Your task to perform on an android device: Add "logitech g910" to the cart on amazon Image 0: 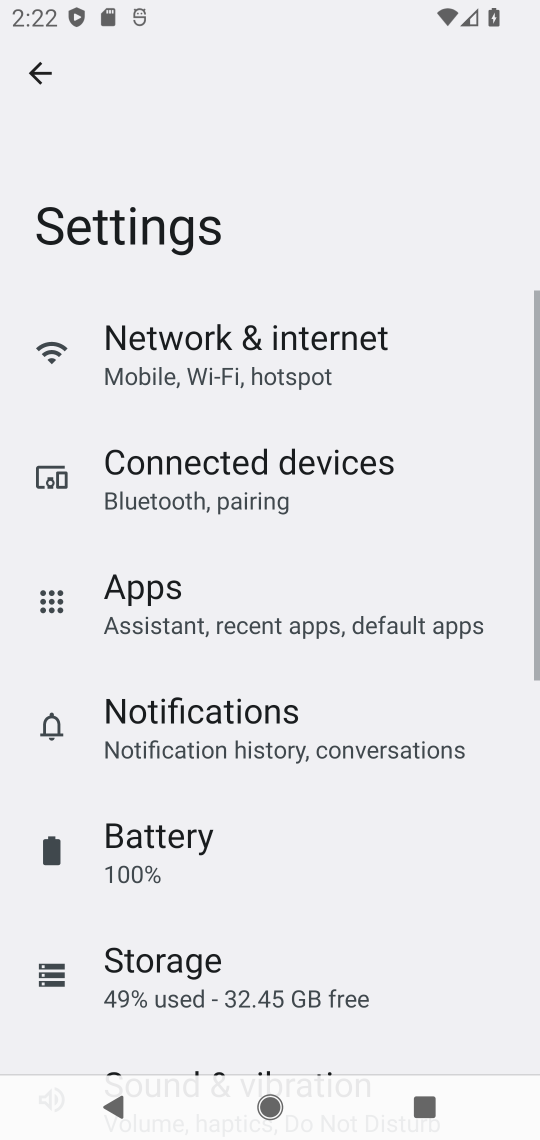
Step 0: press home button
Your task to perform on an android device: Add "logitech g910" to the cart on amazon Image 1: 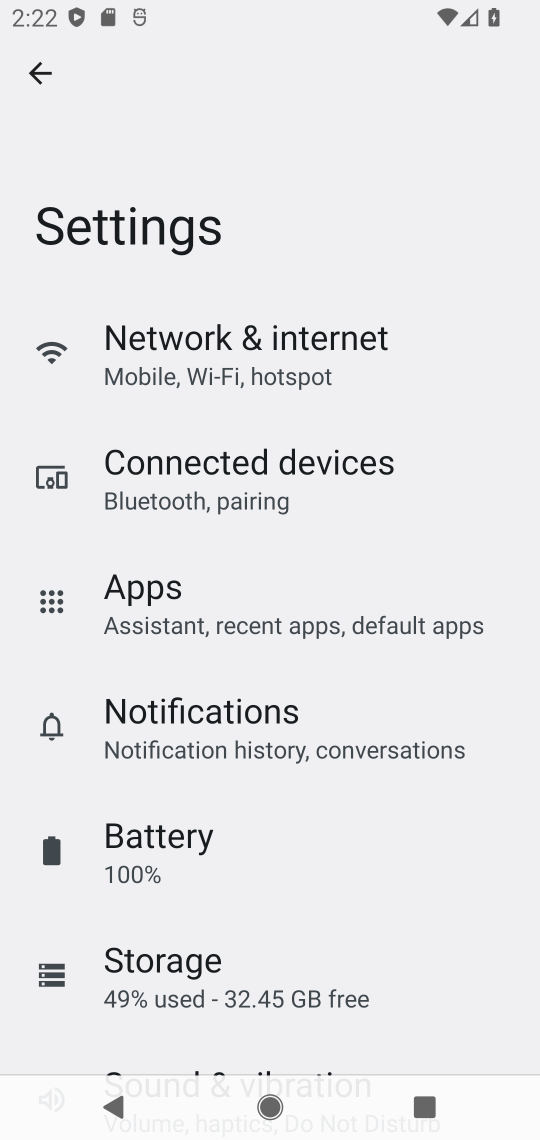
Step 1: press home button
Your task to perform on an android device: Add "logitech g910" to the cart on amazon Image 2: 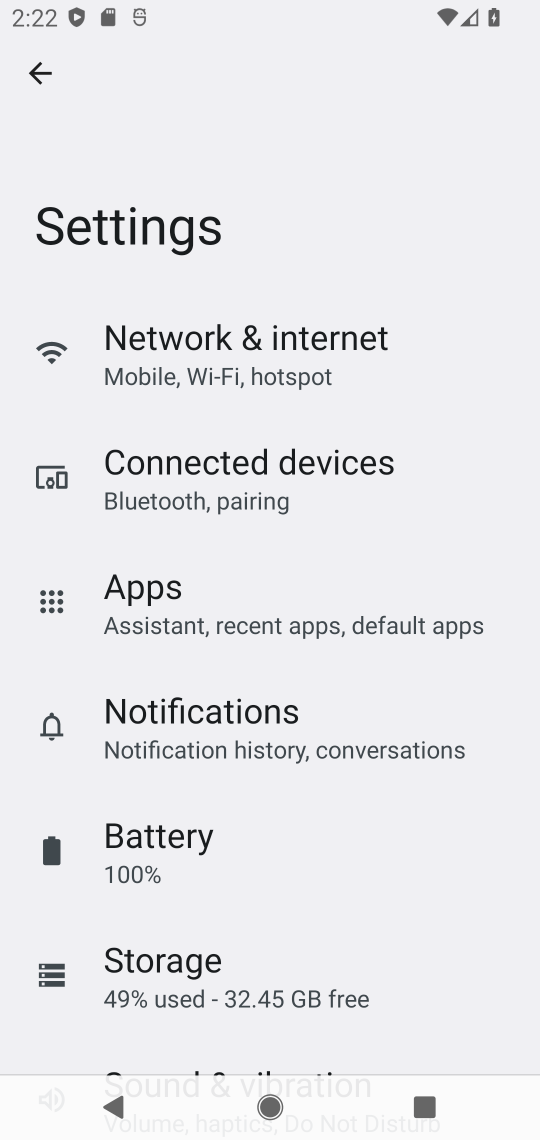
Step 2: press home button
Your task to perform on an android device: Add "logitech g910" to the cart on amazon Image 3: 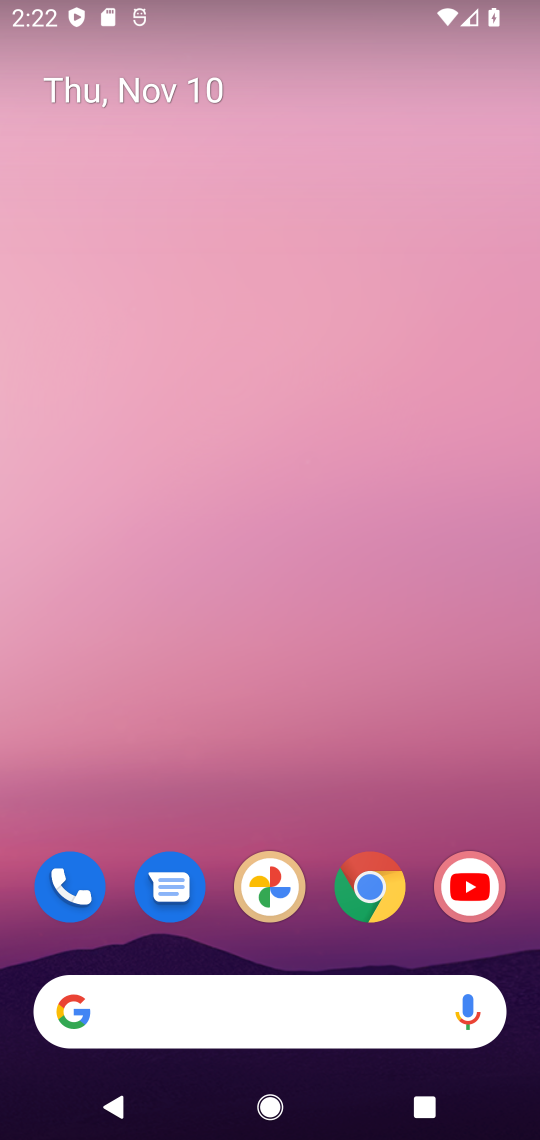
Step 3: drag from (290, 933) to (335, 8)
Your task to perform on an android device: Add "logitech g910" to the cart on amazon Image 4: 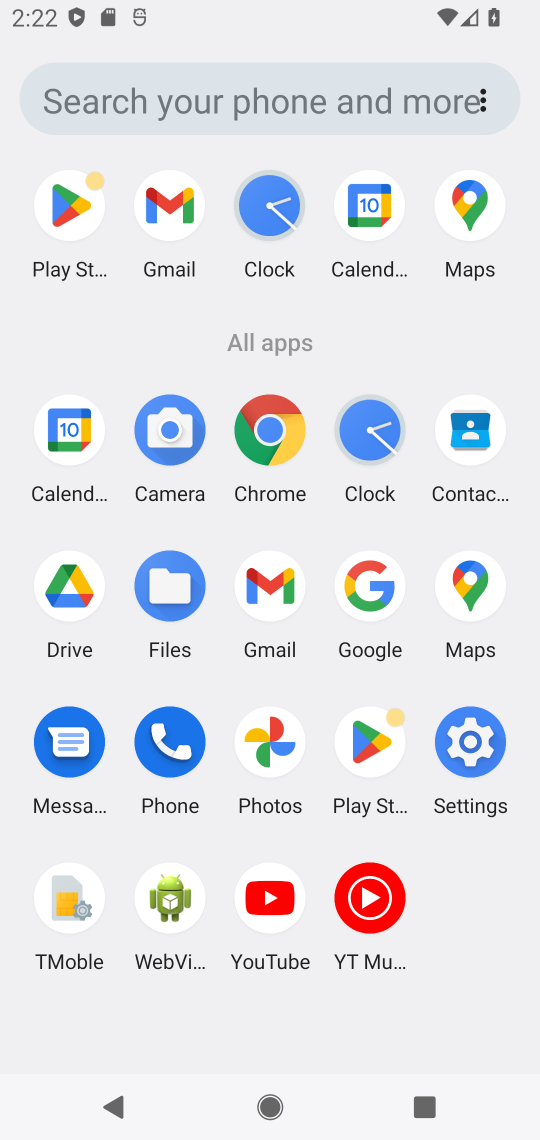
Step 4: click (279, 428)
Your task to perform on an android device: Add "logitech g910" to the cart on amazon Image 5: 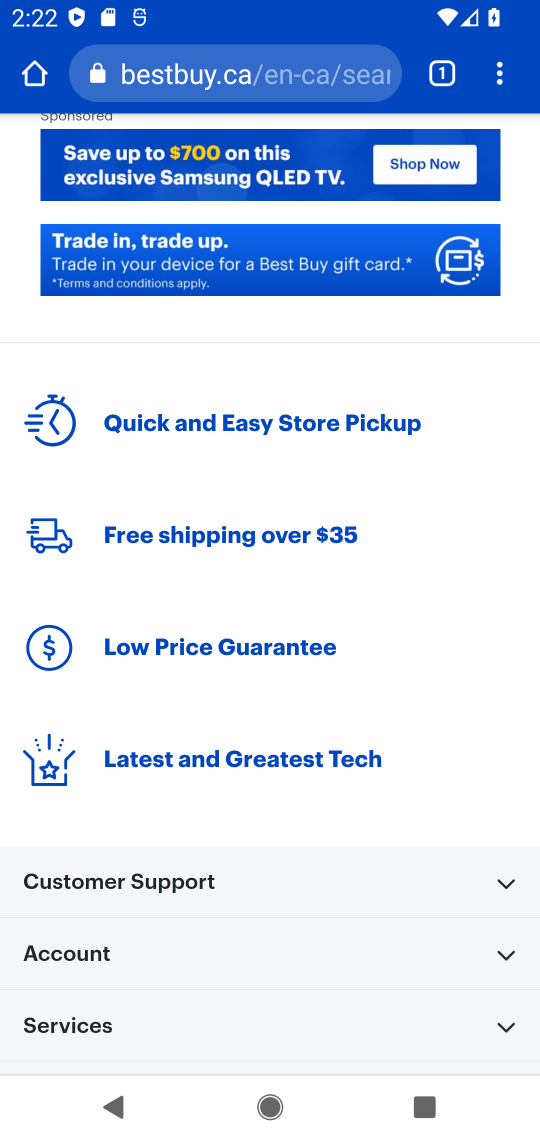
Step 5: click (182, 54)
Your task to perform on an android device: Add "logitech g910" to the cart on amazon Image 6: 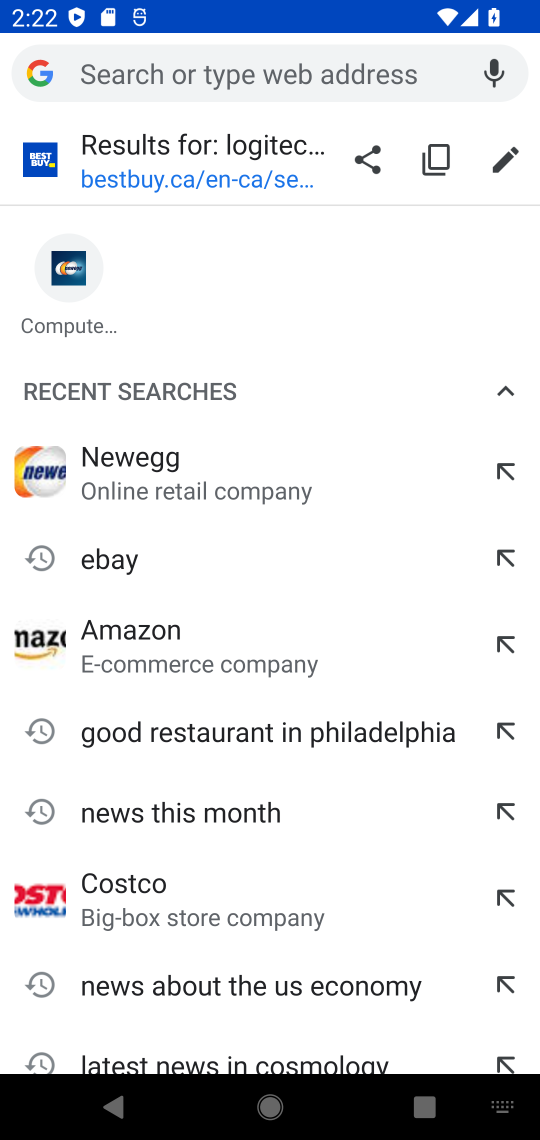
Step 6: type "logitech g910"
Your task to perform on an android device: Add "logitech g910" to the cart on amazon Image 7: 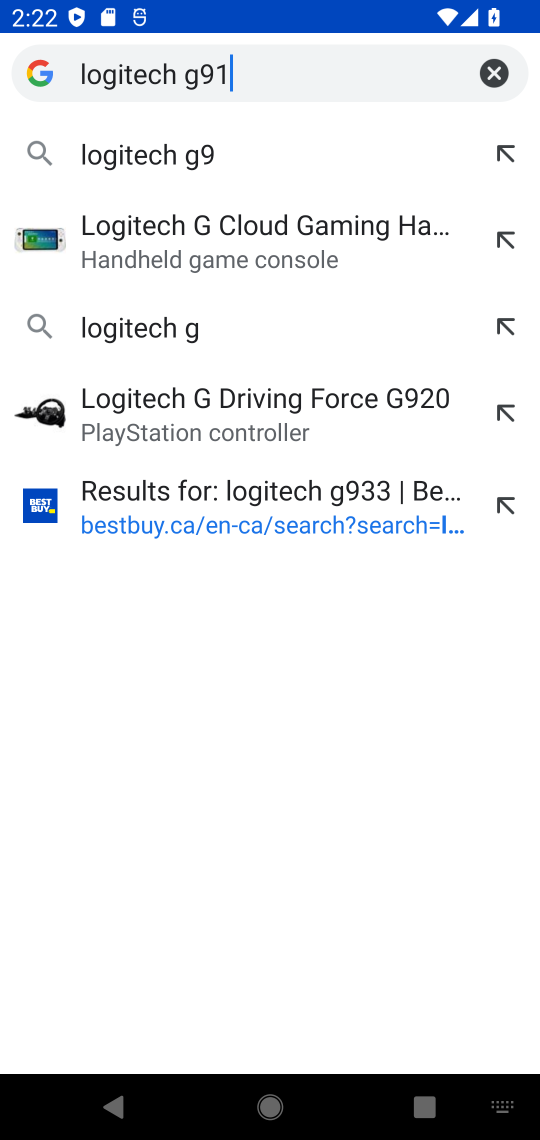
Step 7: press enter
Your task to perform on an android device: Add "logitech g910" to the cart on amazon Image 8: 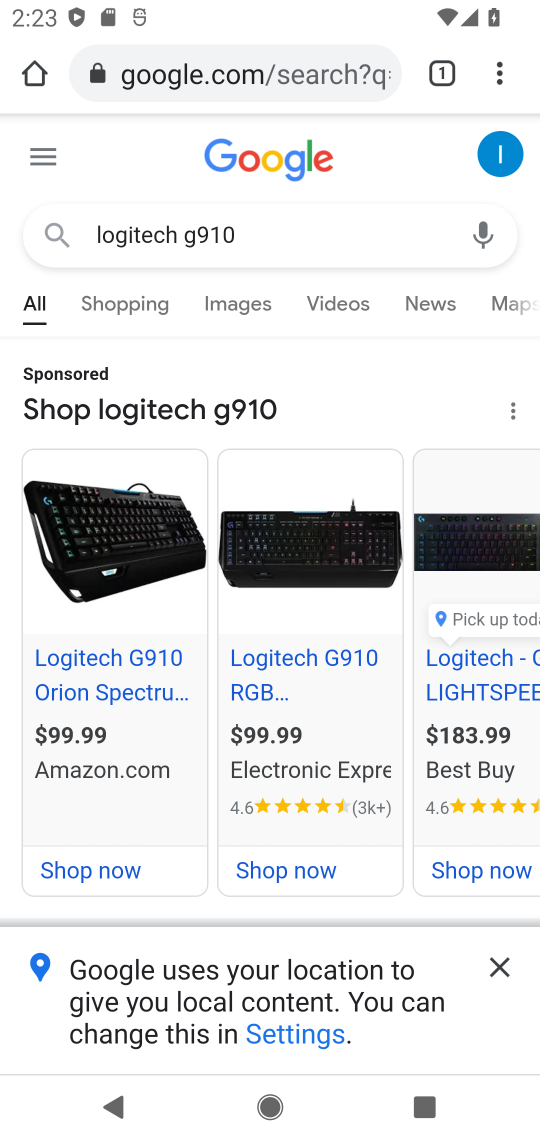
Step 8: click (203, 66)
Your task to perform on an android device: Add "logitech g910" to the cart on amazon Image 9: 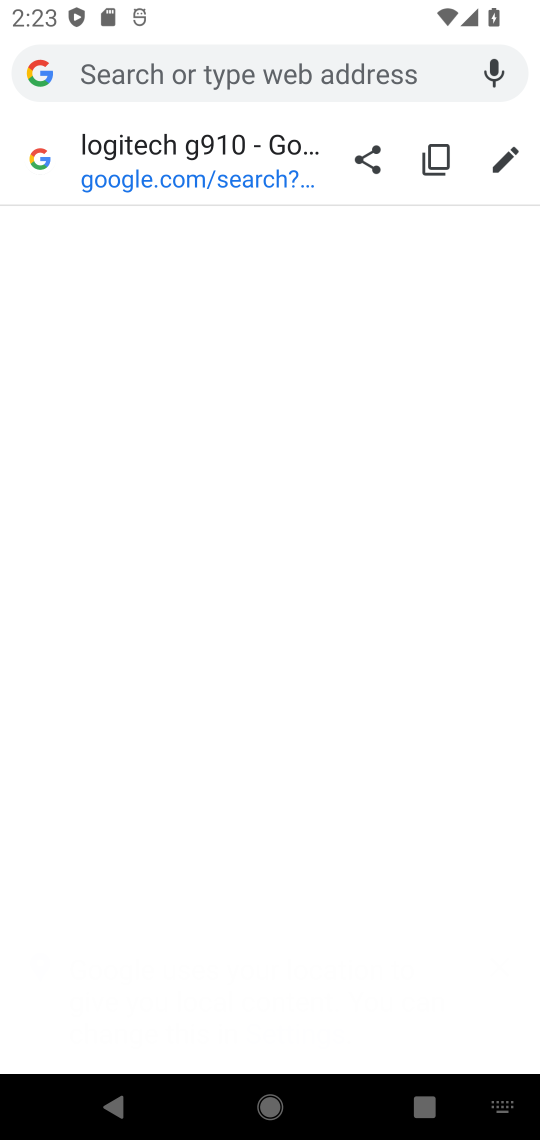
Step 9: type "amazon.com"
Your task to perform on an android device: Add "logitech g910" to the cart on amazon Image 10: 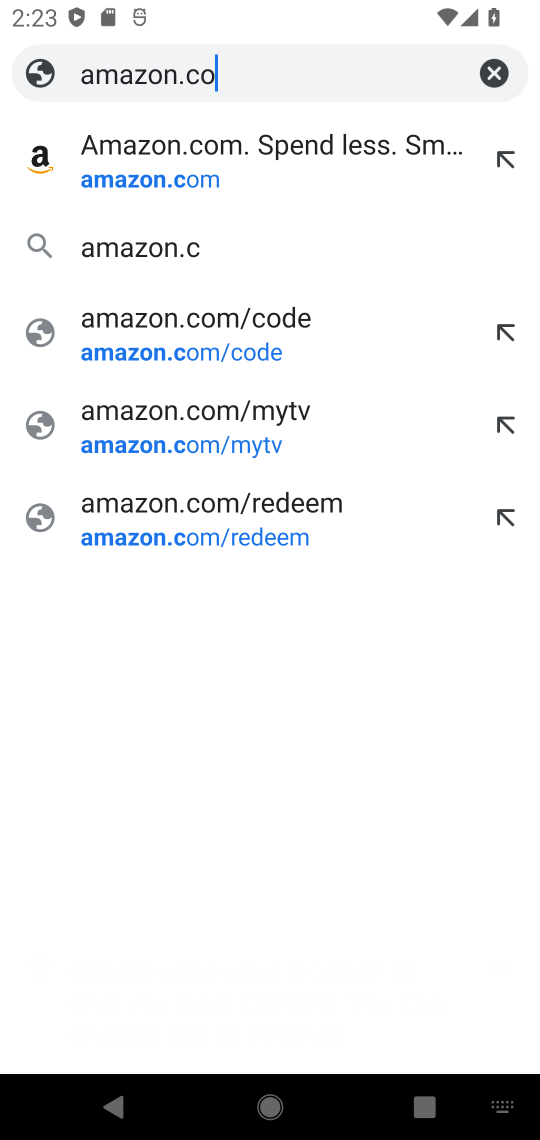
Step 10: press enter
Your task to perform on an android device: Add "logitech g910" to the cart on amazon Image 11: 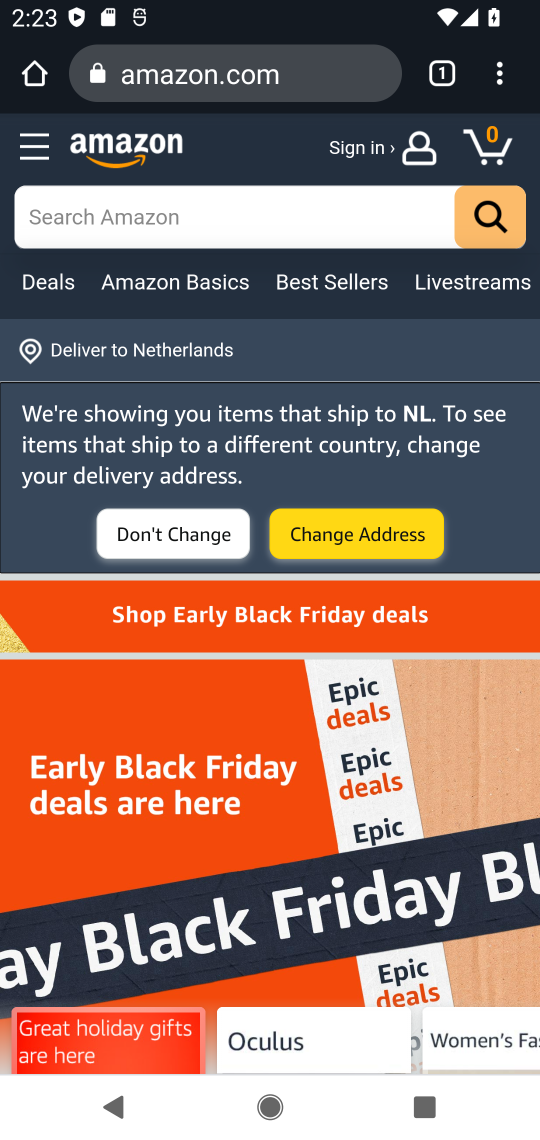
Step 11: click (181, 215)
Your task to perform on an android device: Add "logitech g910" to the cart on amazon Image 12: 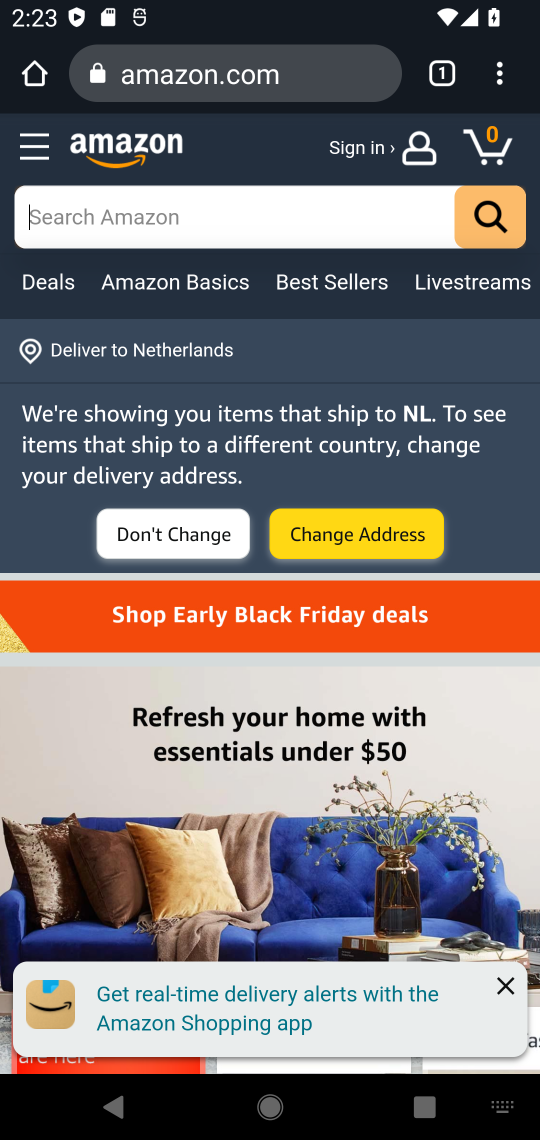
Step 12: type "logitech g910"
Your task to perform on an android device: Add "logitech g910" to the cart on amazon Image 13: 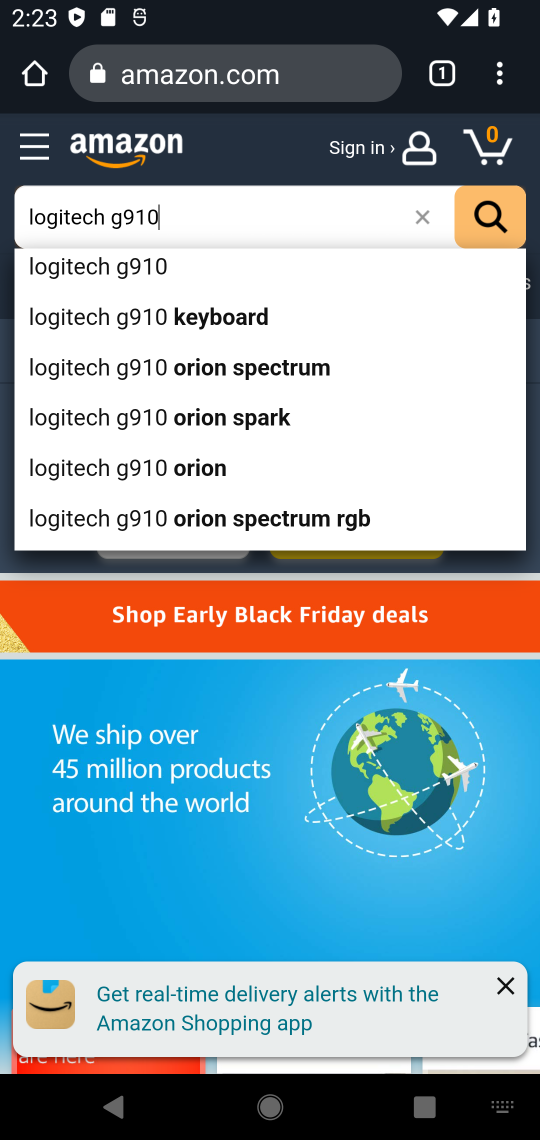
Step 13: press enter
Your task to perform on an android device: Add "logitech g910" to the cart on amazon Image 14: 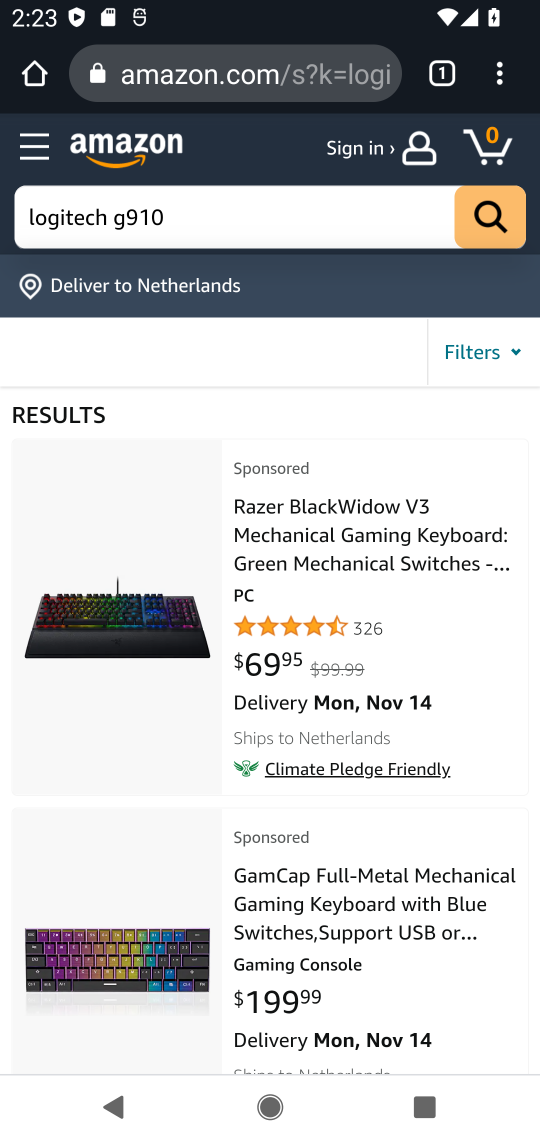
Step 14: drag from (213, 833) to (236, 207)
Your task to perform on an android device: Add "logitech g910" to the cart on amazon Image 15: 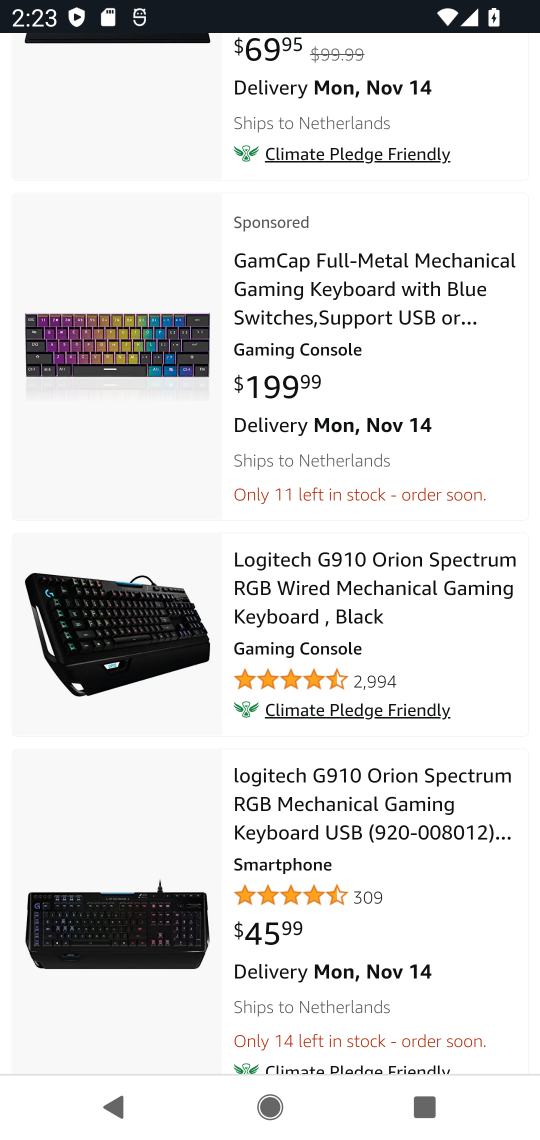
Step 15: click (354, 593)
Your task to perform on an android device: Add "logitech g910" to the cart on amazon Image 16: 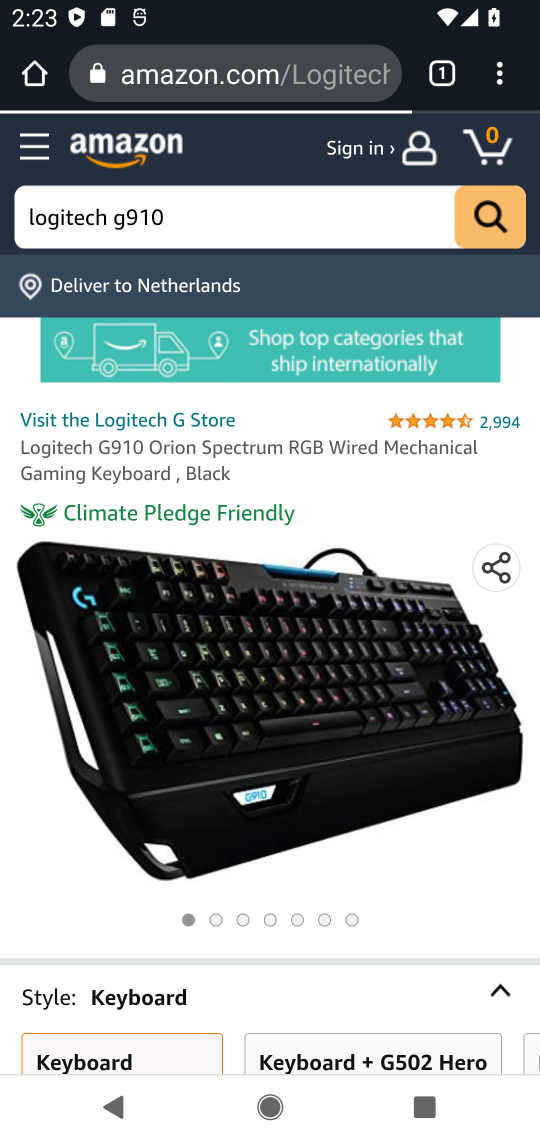
Step 16: drag from (117, 827) to (232, 130)
Your task to perform on an android device: Add "logitech g910" to the cart on amazon Image 17: 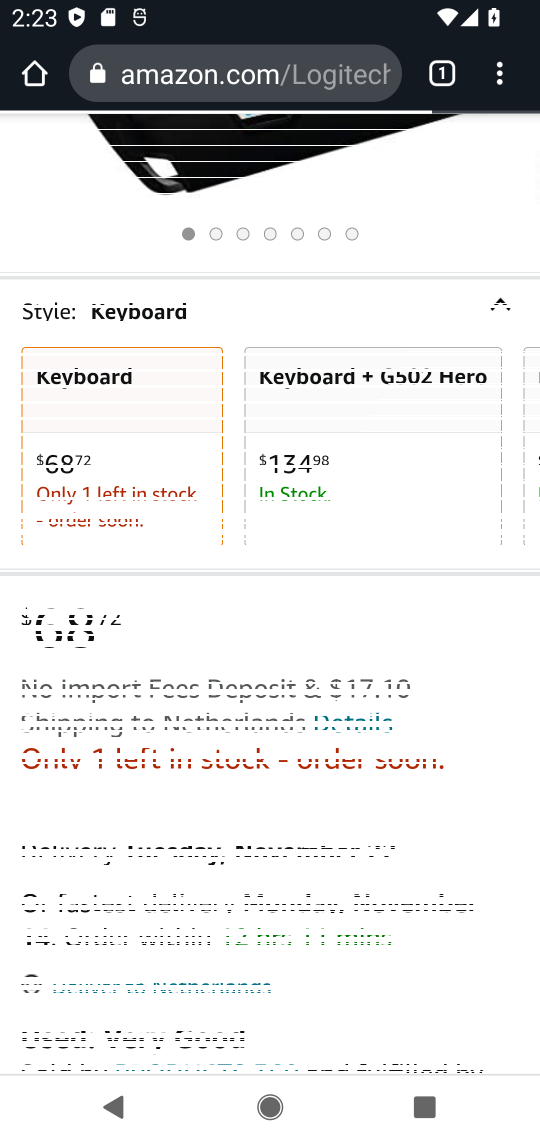
Step 17: drag from (269, 965) to (433, 153)
Your task to perform on an android device: Add "logitech g910" to the cart on amazon Image 18: 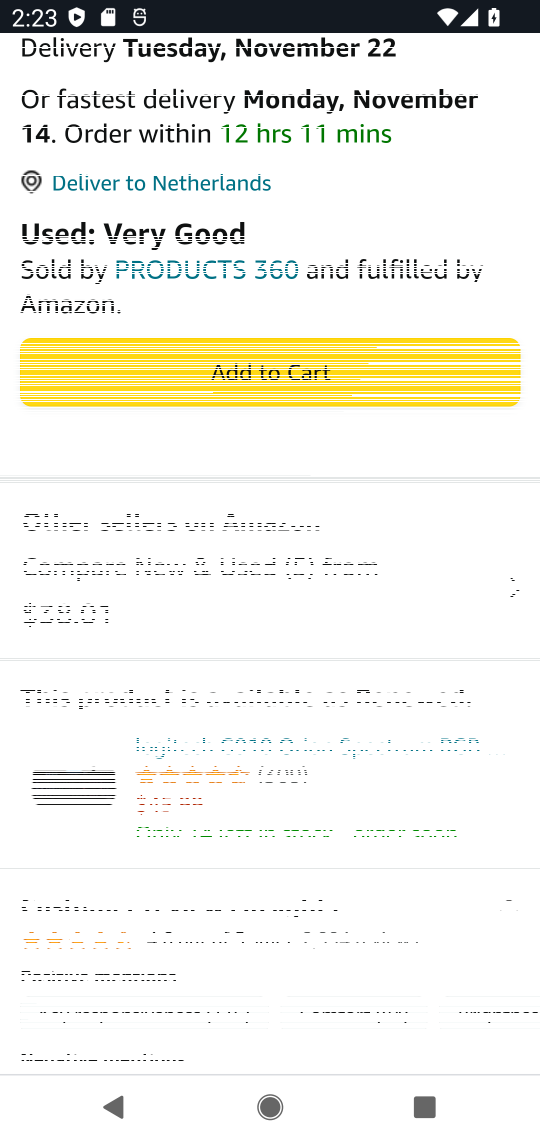
Step 18: click (294, 349)
Your task to perform on an android device: Add "logitech g910" to the cart on amazon Image 19: 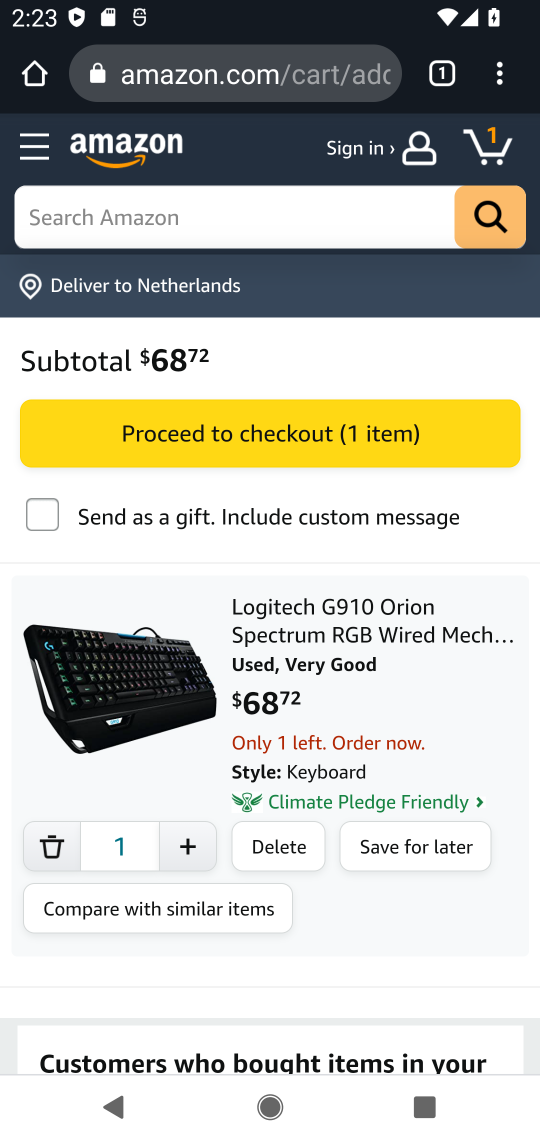
Step 19: task complete